Your task to perform on an android device: What's the news in Bolivia? Image 0: 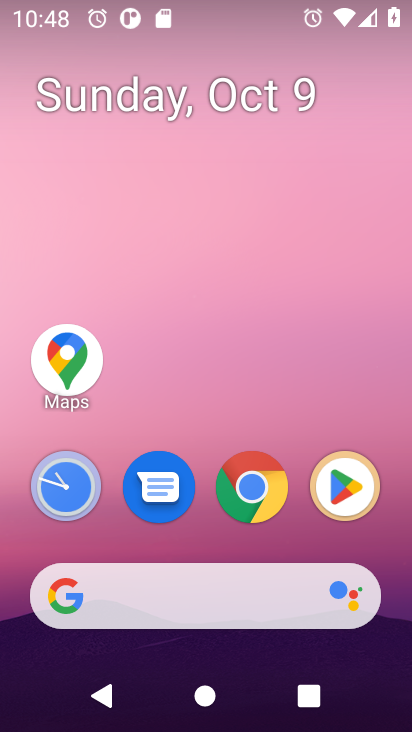
Step 0: drag from (212, 560) to (211, 54)
Your task to perform on an android device: What's the news in Bolivia? Image 1: 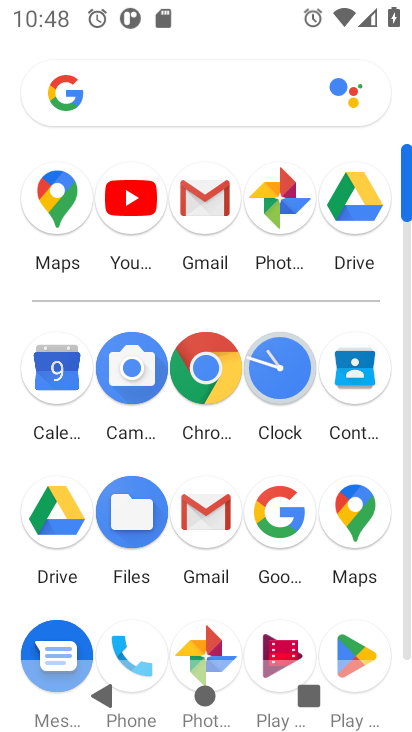
Step 1: click (276, 501)
Your task to perform on an android device: What's the news in Bolivia? Image 2: 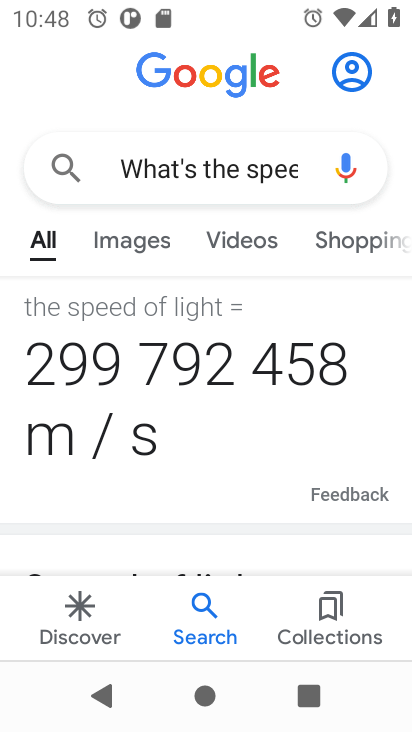
Step 2: click (250, 178)
Your task to perform on an android device: What's the news in Bolivia? Image 3: 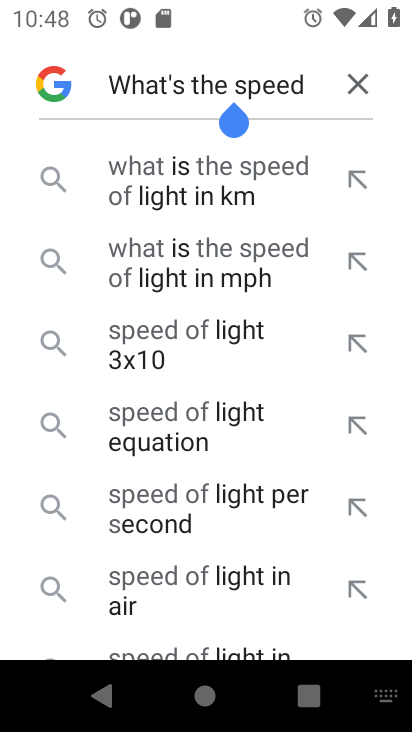
Step 3: click (361, 81)
Your task to perform on an android device: What's the news in Bolivia? Image 4: 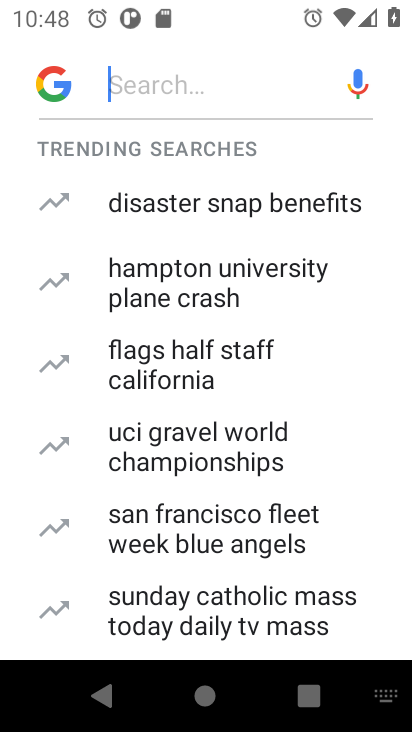
Step 4: type "What's the news in Bolivia?"
Your task to perform on an android device: What's the news in Bolivia? Image 5: 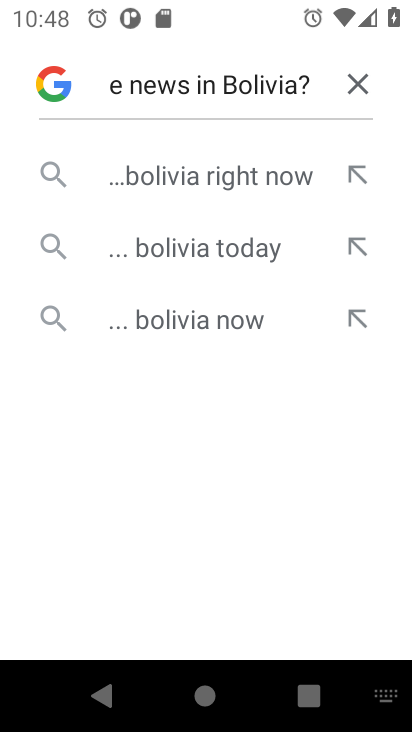
Step 5: type ""
Your task to perform on an android device: What's the news in Bolivia? Image 6: 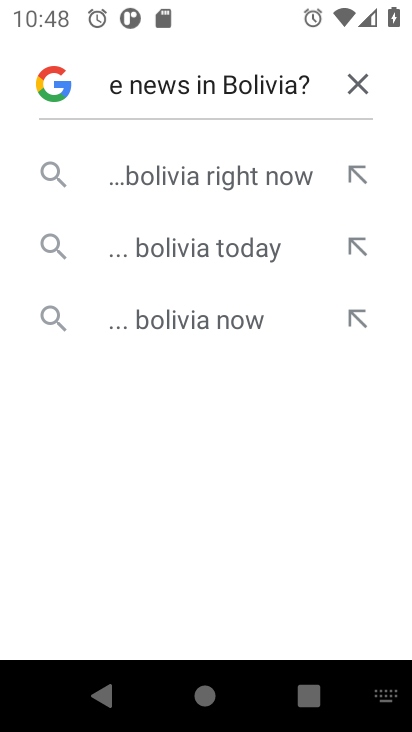
Step 6: click (211, 245)
Your task to perform on an android device: What's the news in Bolivia? Image 7: 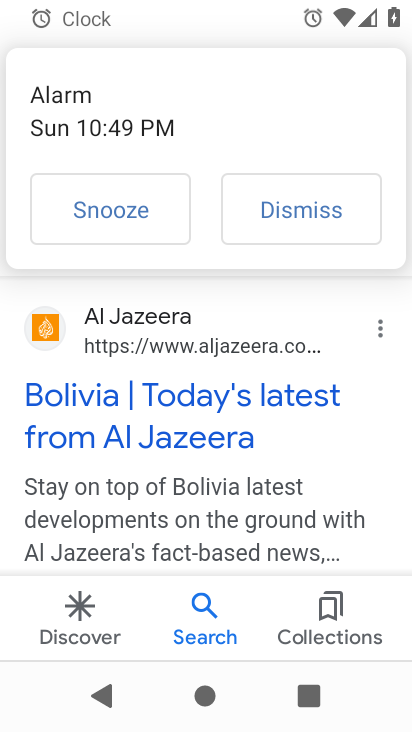
Step 7: click (293, 225)
Your task to perform on an android device: What's the news in Bolivia? Image 8: 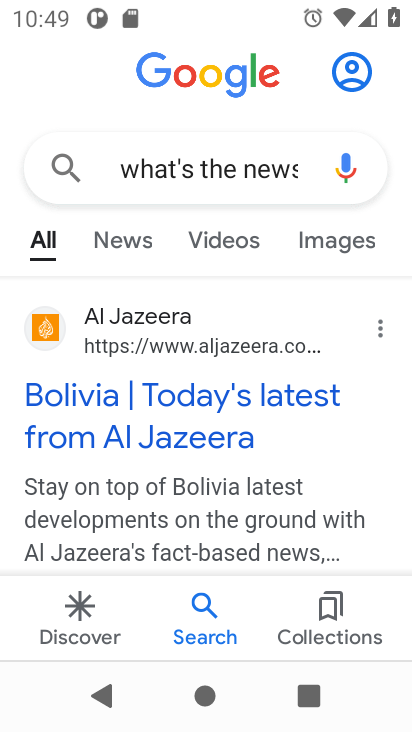
Step 8: click (119, 236)
Your task to perform on an android device: What's the news in Bolivia? Image 9: 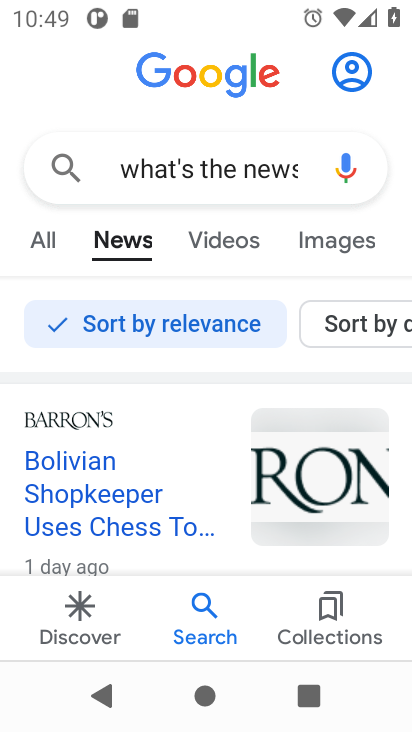
Step 9: task complete